Your task to perform on an android device: turn off notifications settings in the gmail app Image 0: 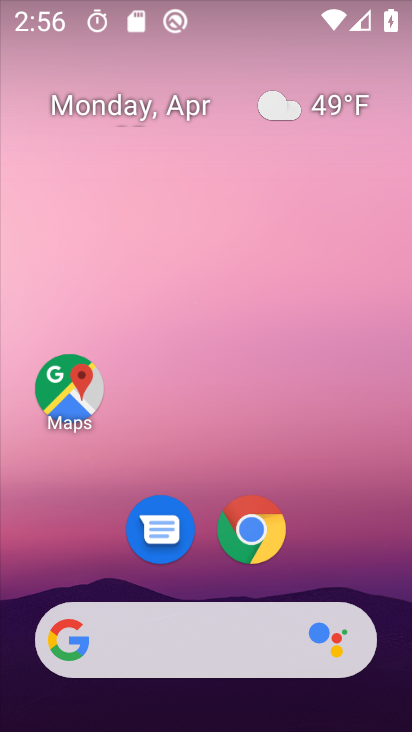
Step 0: click (389, 332)
Your task to perform on an android device: turn off notifications settings in the gmail app Image 1: 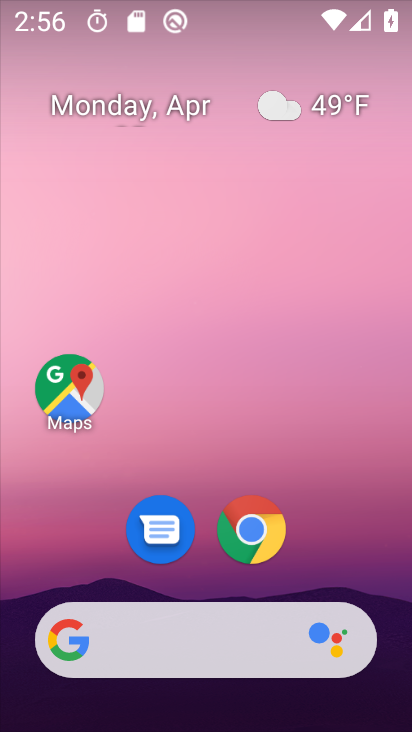
Step 1: drag from (383, 652) to (328, 264)
Your task to perform on an android device: turn off notifications settings in the gmail app Image 2: 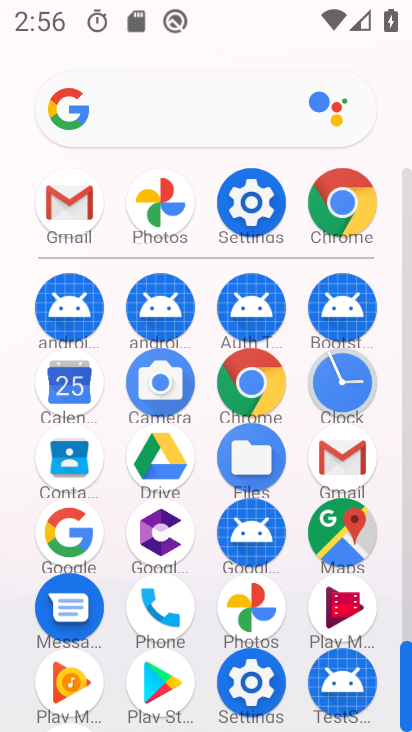
Step 2: click (333, 457)
Your task to perform on an android device: turn off notifications settings in the gmail app Image 3: 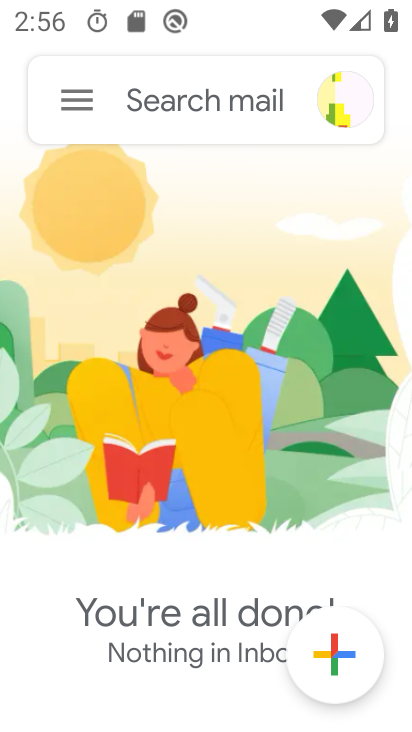
Step 3: click (83, 107)
Your task to perform on an android device: turn off notifications settings in the gmail app Image 4: 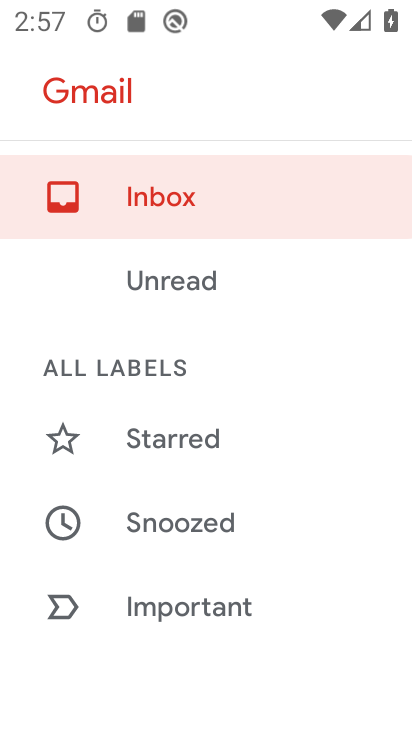
Step 4: drag from (292, 628) to (285, 272)
Your task to perform on an android device: turn off notifications settings in the gmail app Image 5: 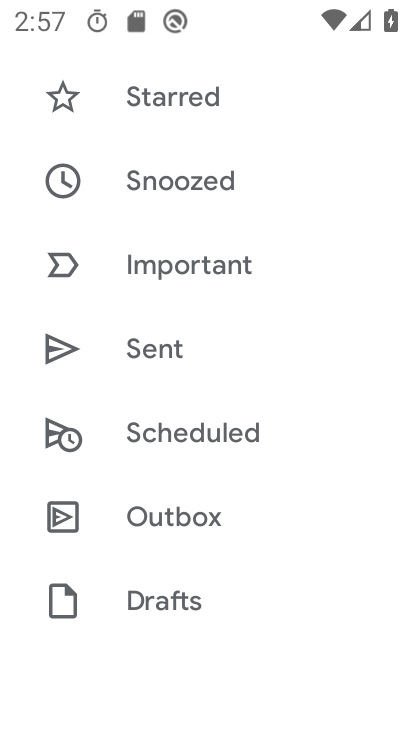
Step 5: drag from (297, 534) to (301, 234)
Your task to perform on an android device: turn off notifications settings in the gmail app Image 6: 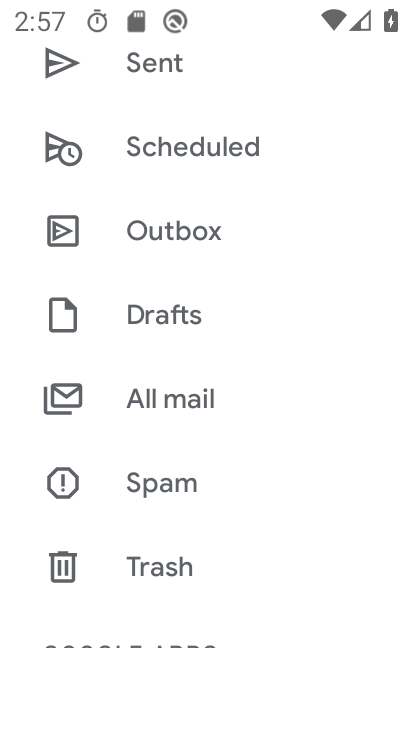
Step 6: drag from (272, 617) to (299, 229)
Your task to perform on an android device: turn off notifications settings in the gmail app Image 7: 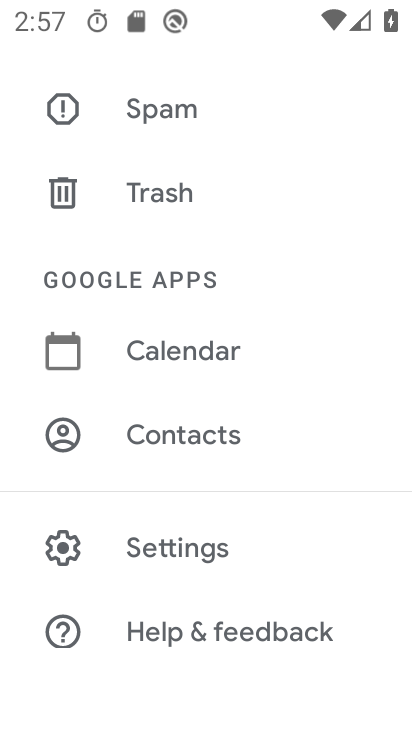
Step 7: click (158, 541)
Your task to perform on an android device: turn off notifications settings in the gmail app Image 8: 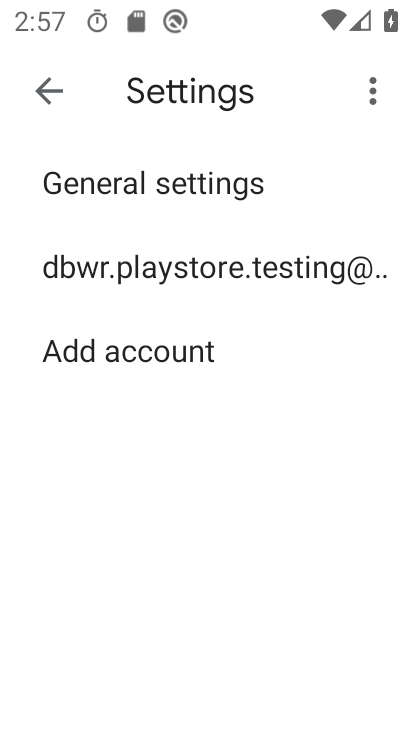
Step 8: click (125, 186)
Your task to perform on an android device: turn off notifications settings in the gmail app Image 9: 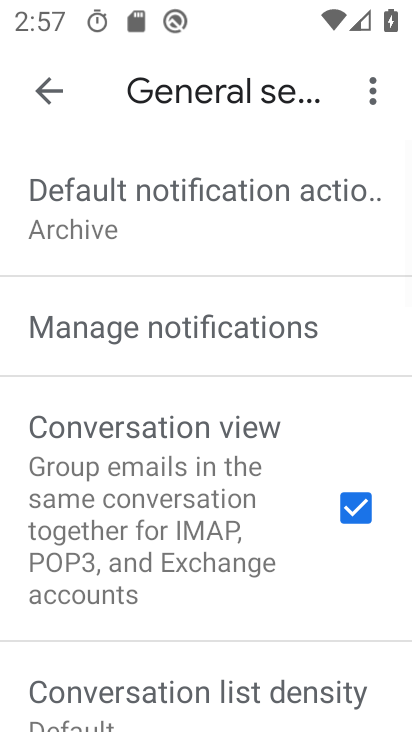
Step 9: click (133, 329)
Your task to perform on an android device: turn off notifications settings in the gmail app Image 10: 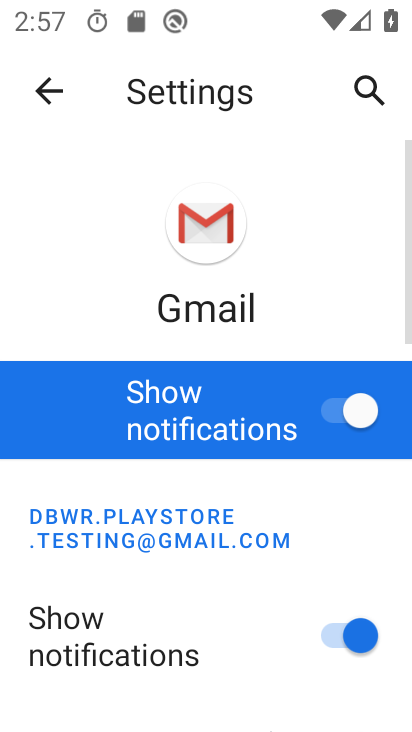
Step 10: click (334, 409)
Your task to perform on an android device: turn off notifications settings in the gmail app Image 11: 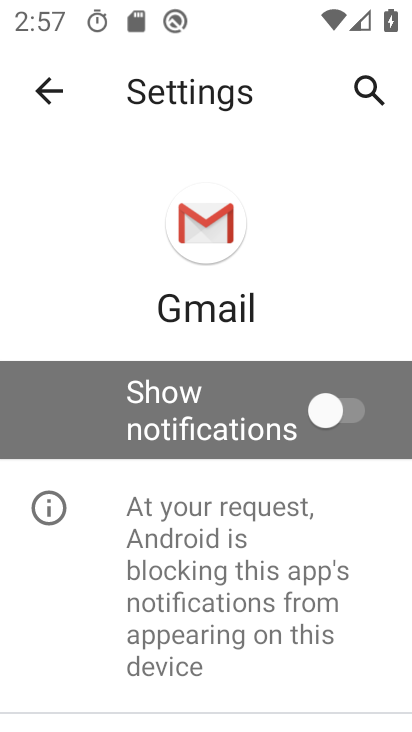
Step 11: task complete